Your task to perform on an android device: install app "Yahoo Mail" Image 0: 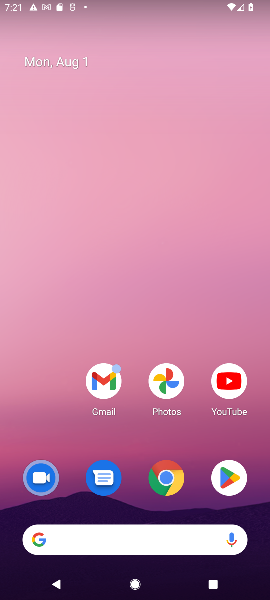
Step 0: press home button
Your task to perform on an android device: install app "Yahoo Mail" Image 1: 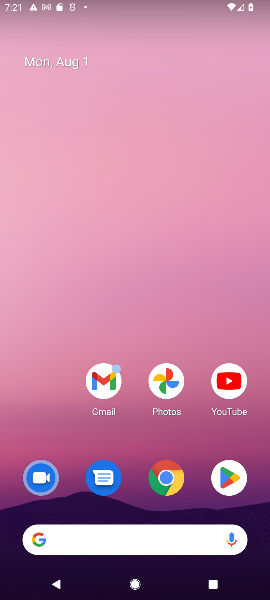
Step 1: click (229, 467)
Your task to perform on an android device: install app "Yahoo Mail" Image 2: 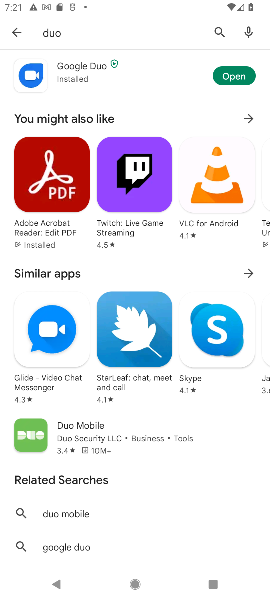
Step 2: click (211, 35)
Your task to perform on an android device: install app "Yahoo Mail" Image 3: 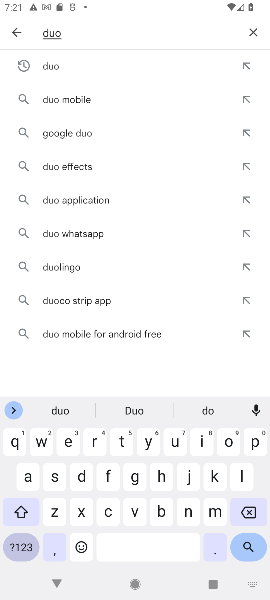
Step 3: click (257, 34)
Your task to perform on an android device: install app "Yahoo Mail" Image 4: 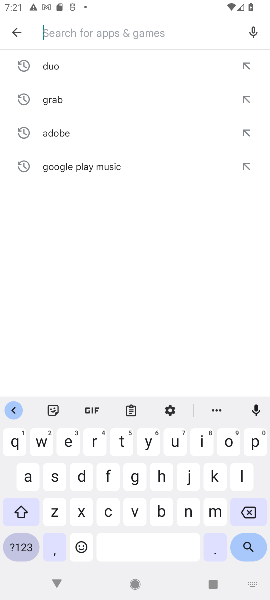
Step 4: click (150, 442)
Your task to perform on an android device: install app "Yahoo Mail" Image 5: 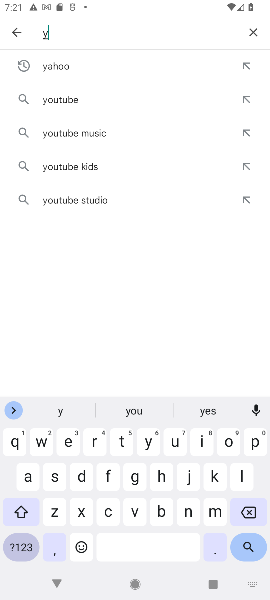
Step 5: click (27, 474)
Your task to perform on an android device: install app "Yahoo Mail" Image 6: 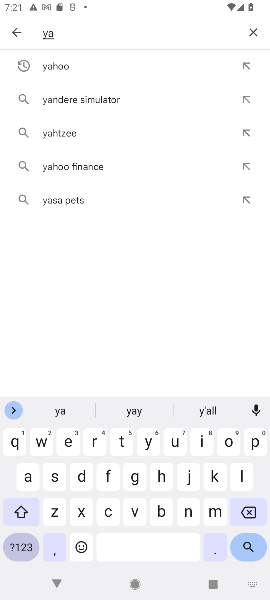
Step 6: click (53, 70)
Your task to perform on an android device: install app "Yahoo Mail" Image 7: 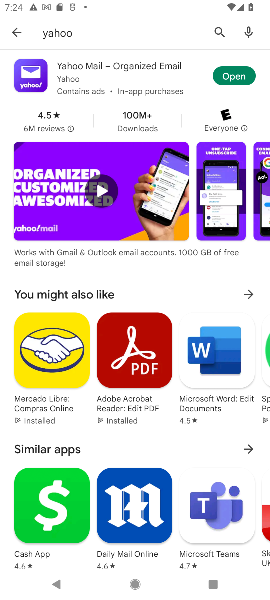
Step 7: task complete